Your task to perform on an android device: find snoozed emails in the gmail app Image 0: 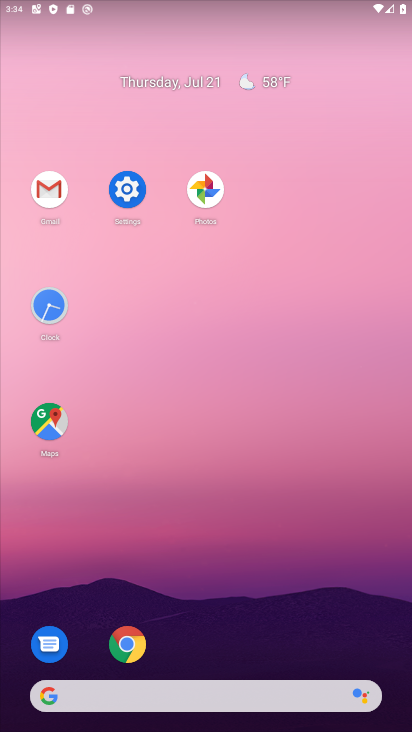
Step 0: click (57, 178)
Your task to perform on an android device: find snoozed emails in the gmail app Image 1: 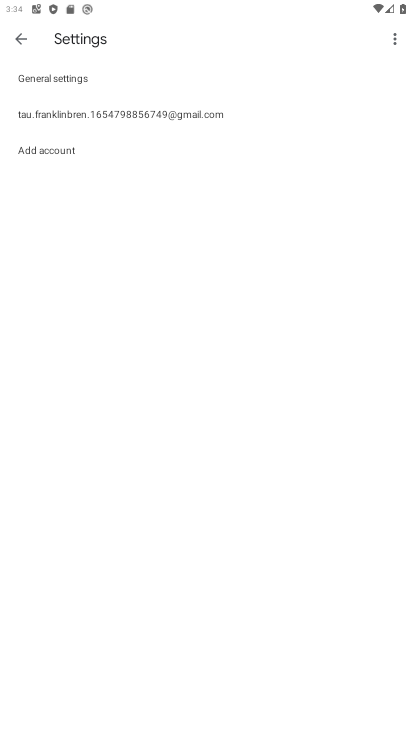
Step 1: click (24, 44)
Your task to perform on an android device: find snoozed emails in the gmail app Image 2: 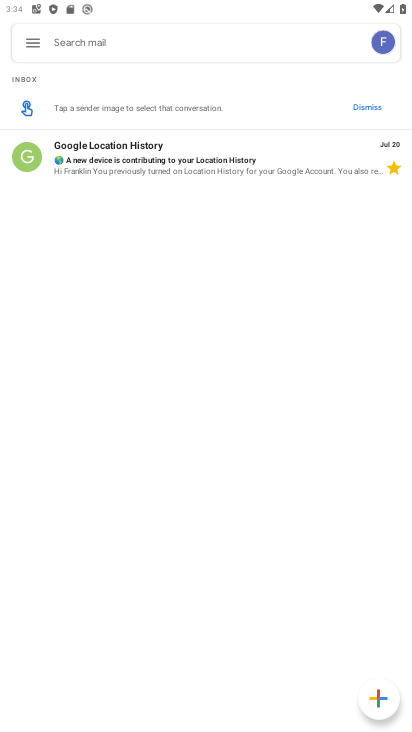
Step 2: click (20, 51)
Your task to perform on an android device: find snoozed emails in the gmail app Image 3: 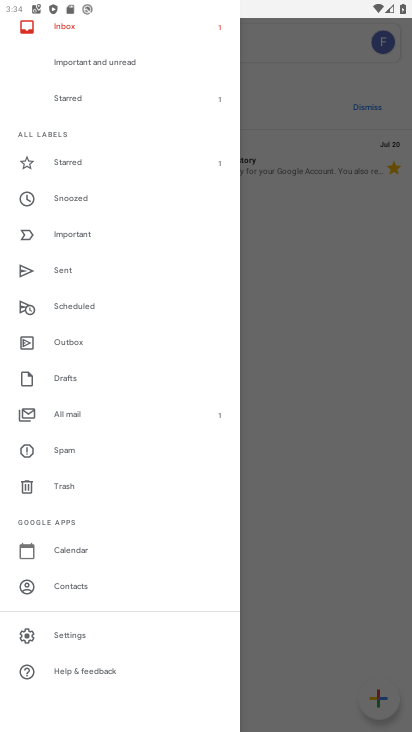
Step 3: click (103, 191)
Your task to perform on an android device: find snoozed emails in the gmail app Image 4: 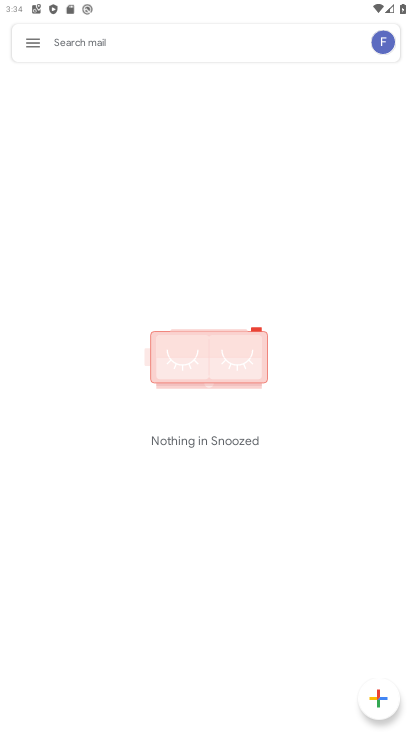
Step 4: task complete